Your task to perform on an android device: open chrome and create a bookmark for the current page Image 0: 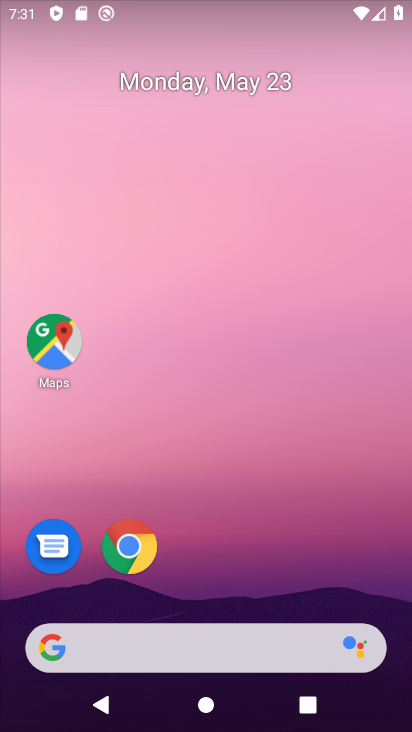
Step 0: drag from (376, 579) to (392, 196)
Your task to perform on an android device: open chrome and create a bookmark for the current page Image 1: 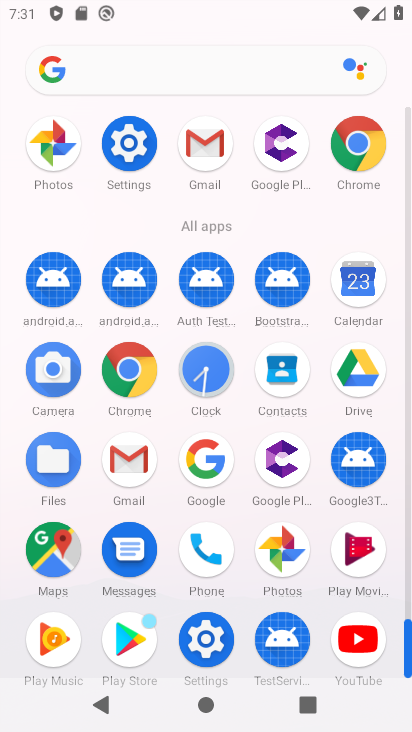
Step 1: click (376, 170)
Your task to perform on an android device: open chrome and create a bookmark for the current page Image 2: 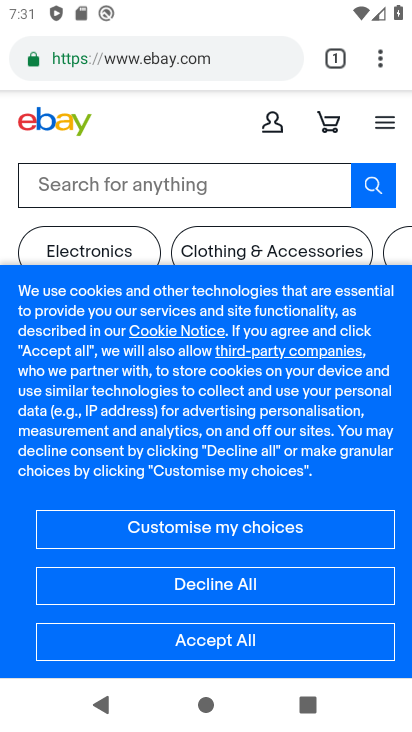
Step 2: click (383, 56)
Your task to perform on an android device: open chrome and create a bookmark for the current page Image 3: 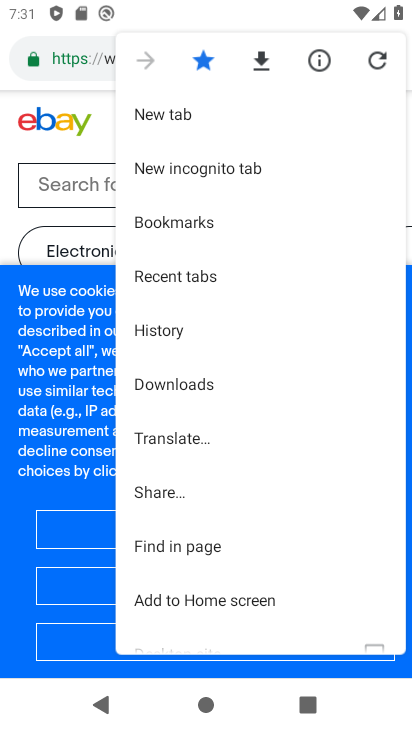
Step 3: task complete